Your task to perform on an android device: toggle improve location accuracy Image 0: 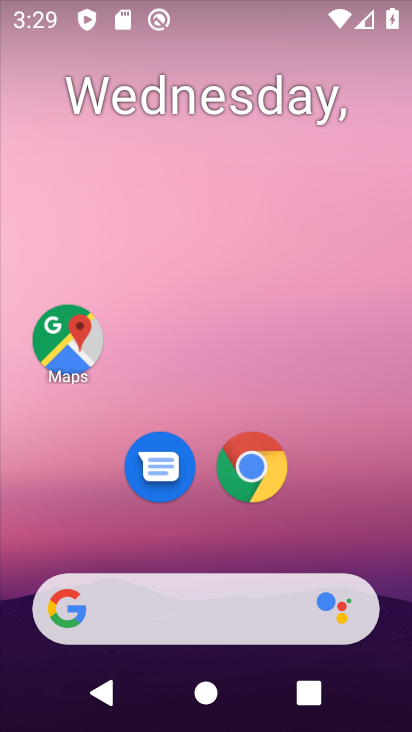
Step 0: click (260, 0)
Your task to perform on an android device: toggle improve location accuracy Image 1: 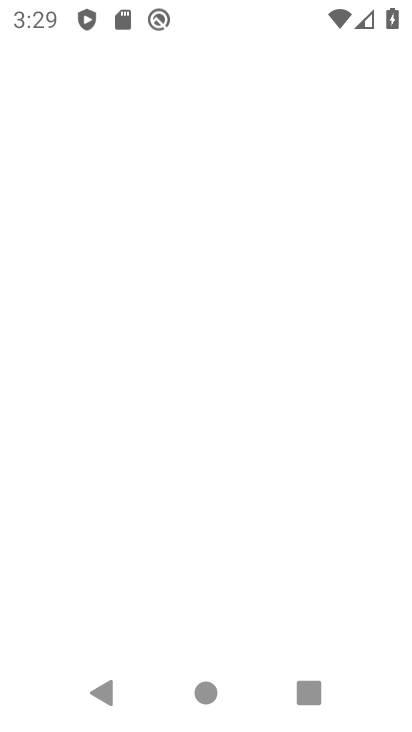
Step 1: press home button
Your task to perform on an android device: toggle improve location accuracy Image 2: 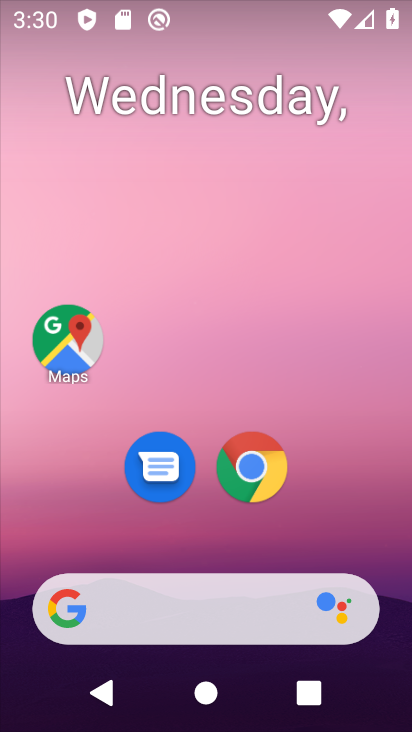
Step 2: drag from (273, 492) to (252, 37)
Your task to perform on an android device: toggle improve location accuracy Image 3: 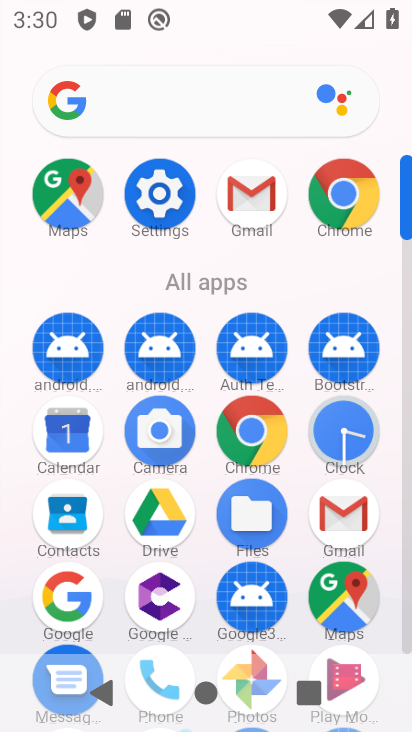
Step 3: click (168, 195)
Your task to perform on an android device: toggle improve location accuracy Image 4: 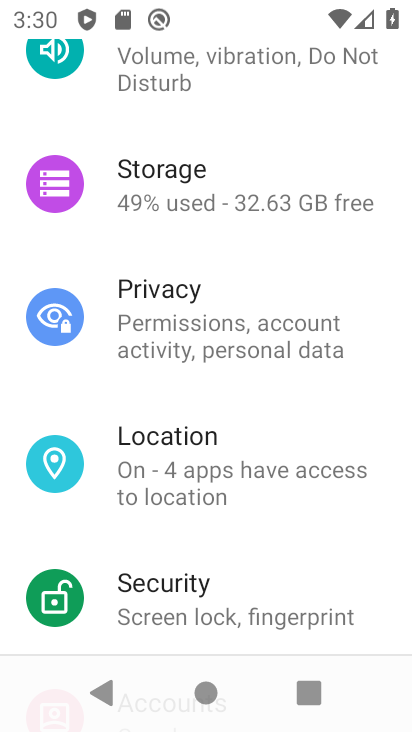
Step 4: click (232, 465)
Your task to perform on an android device: toggle improve location accuracy Image 5: 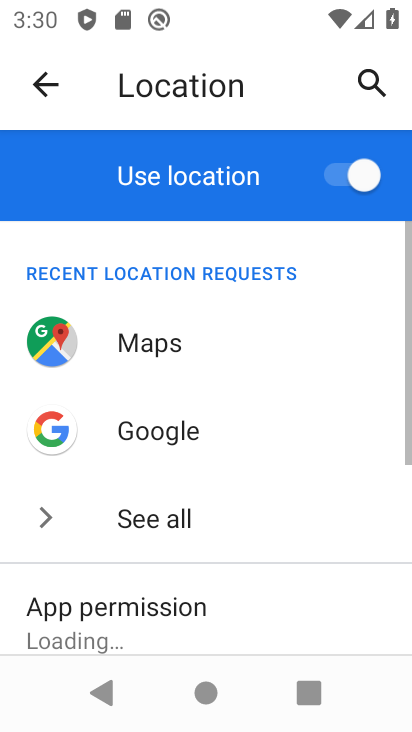
Step 5: drag from (230, 563) to (270, 60)
Your task to perform on an android device: toggle improve location accuracy Image 6: 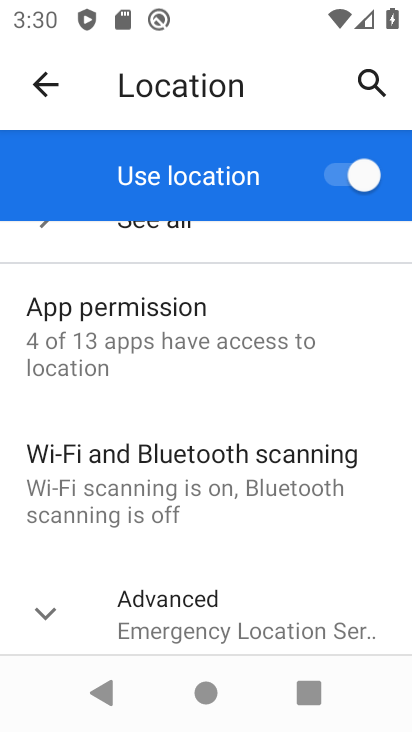
Step 6: drag from (261, 591) to (247, 276)
Your task to perform on an android device: toggle improve location accuracy Image 7: 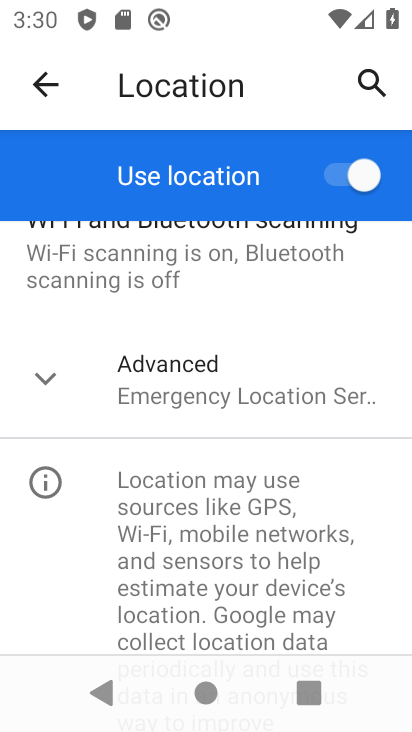
Step 7: click (204, 386)
Your task to perform on an android device: toggle improve location accuracy Image 8: 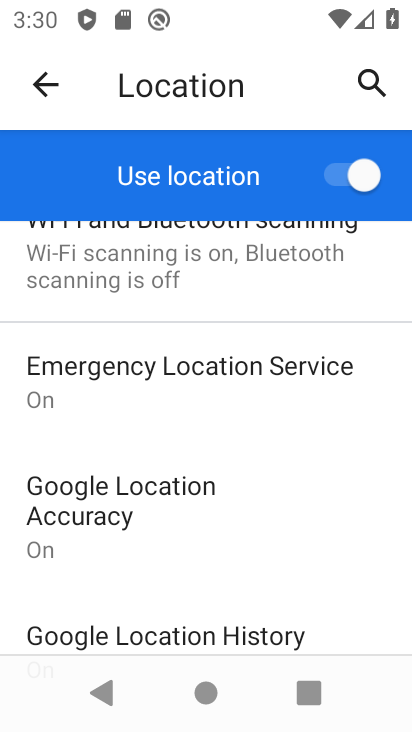
Step 8: click (291, 640)
Your task to perform on an android device: toggle improve location accuracy Image 9: 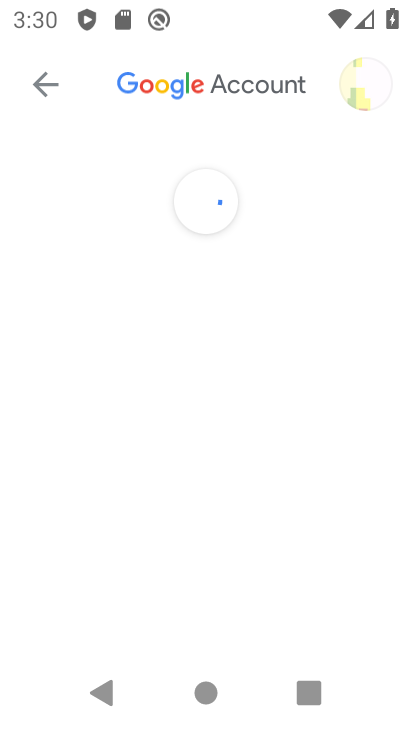
Step 9: press back button
Your task to perform on an android device: toggle improve location accuracy Image 10: 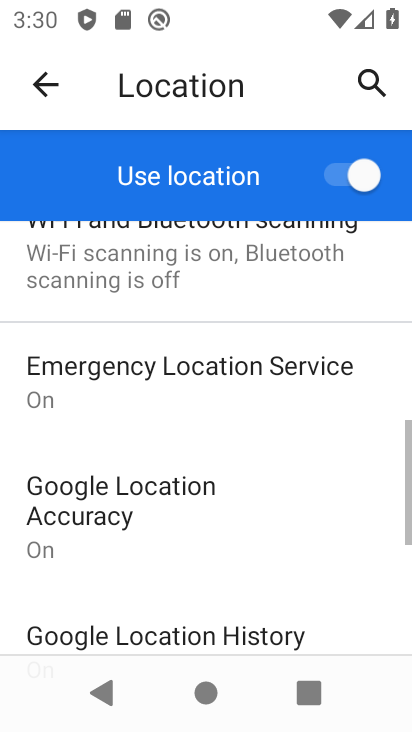
Step 10: drag from (269, 591) to (283, 454)
Your task to perform on an android device: toggle improve location accuracy Image 11: 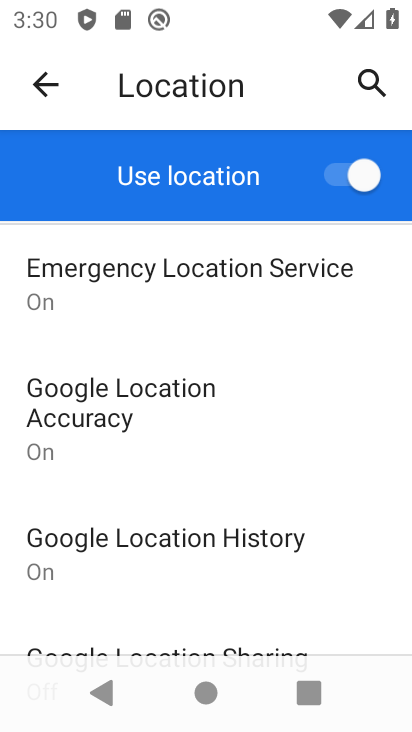
Step 11: click (154, 414)
Your task to perform on an android device: toggle improve location accuracy Image 12: 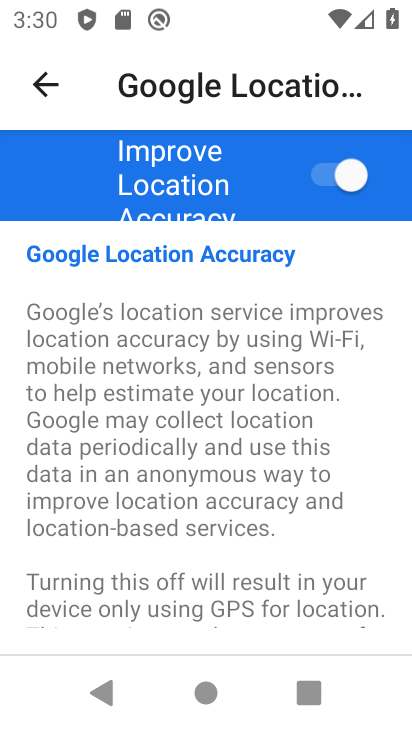
Step 12: click (348, 171)
Your task to perform on an android device: toggle improve location accuracy Image 13: 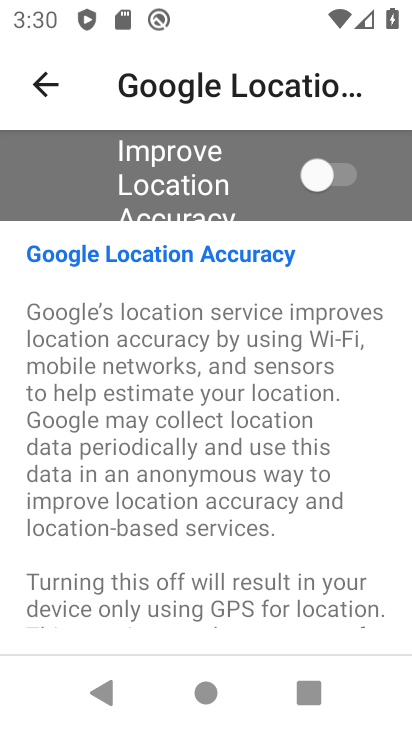
Step 13: task complete